Your task to perform on an android device: install app "Google Home" Image 0: 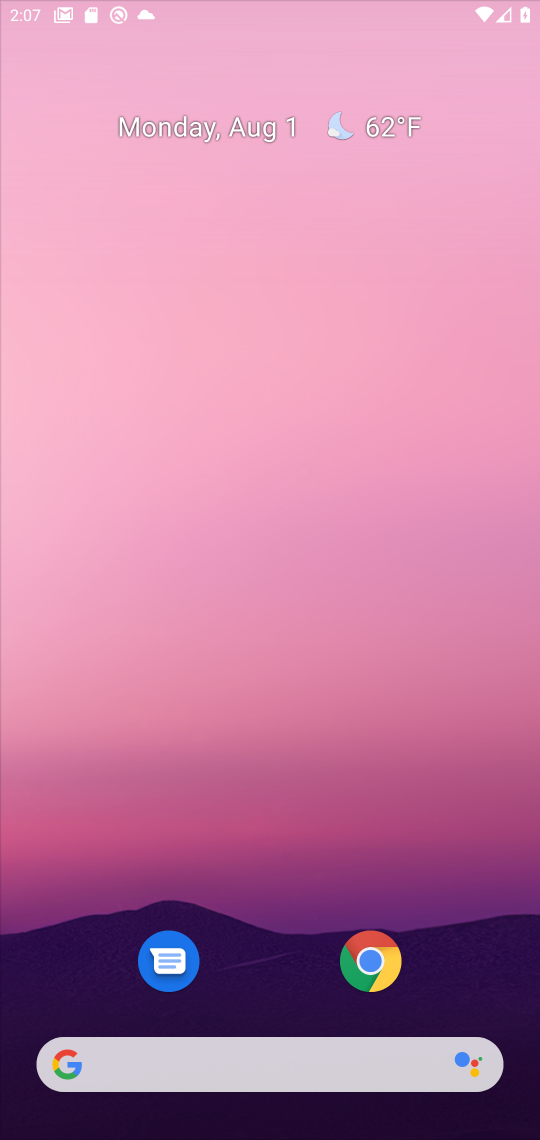
Step 0: press home button
Your task to perform on an android device: install app "Google Home" Image 1: 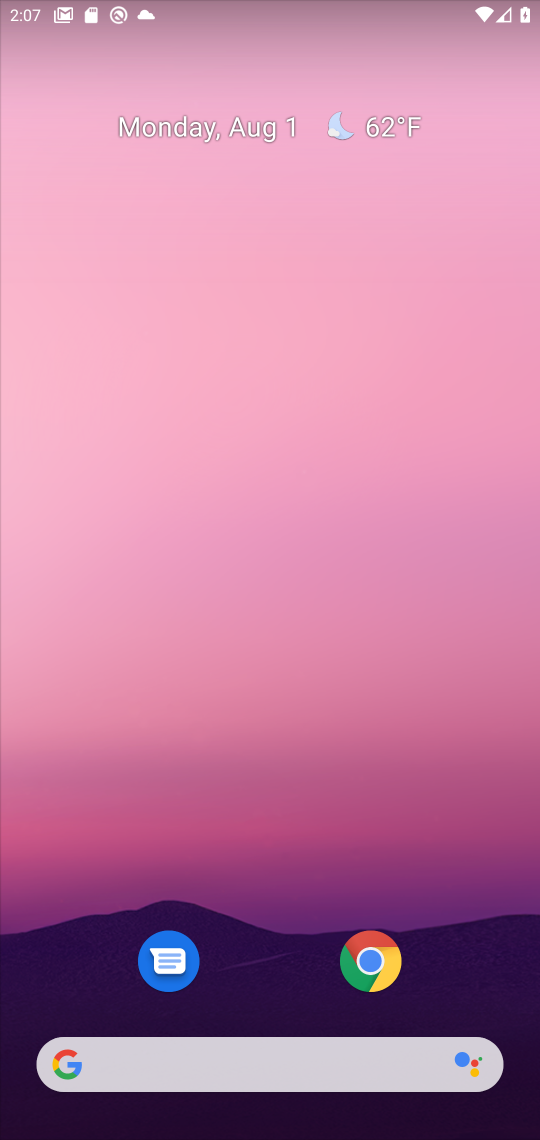
Step 1: press home button
Your task to perform on an android device: install app "Google Home" Image 2: 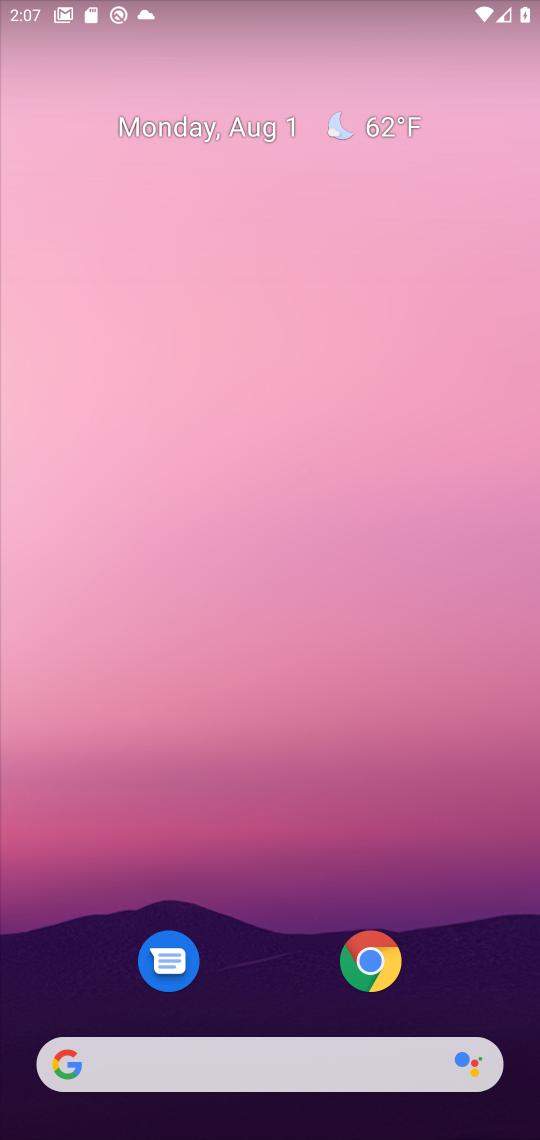
Step 2: drag from (464, 935) to (459, 15)
Your task to perform on an android device: install app "Google Home" Image 3: 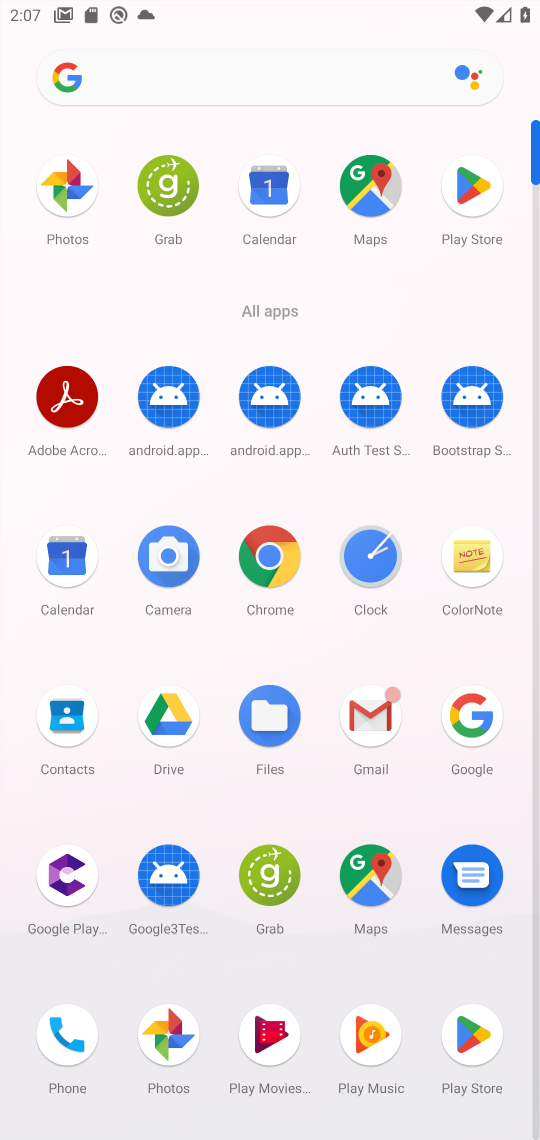
Step 3: click (485, 192)
Your task to perform on an android device: install app "Google Home" Image 4: 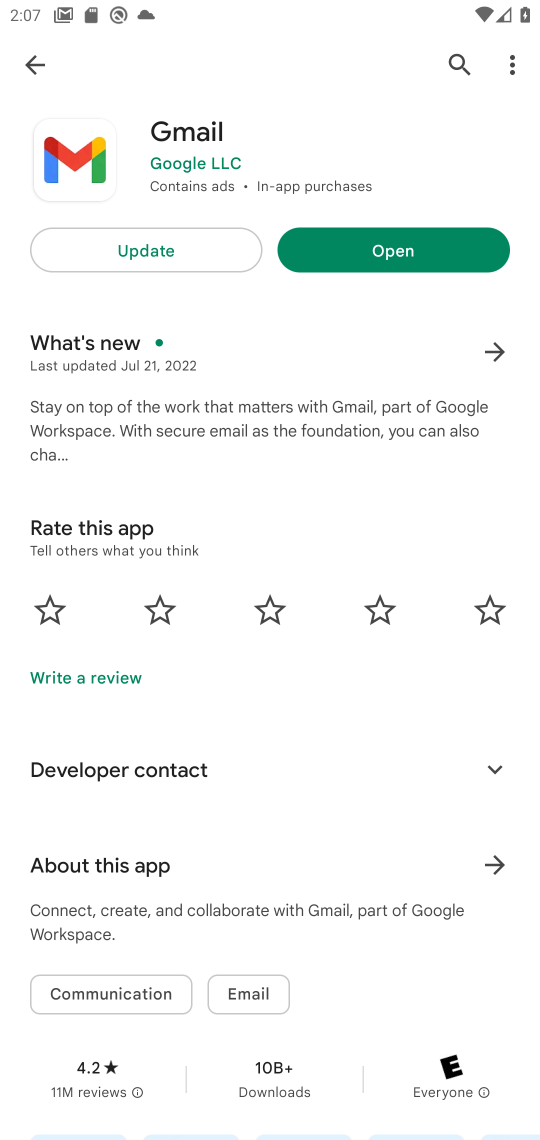
Step 4: click (447, 67)
Your task to perform on an android device: install app "Google Home" Image 5: 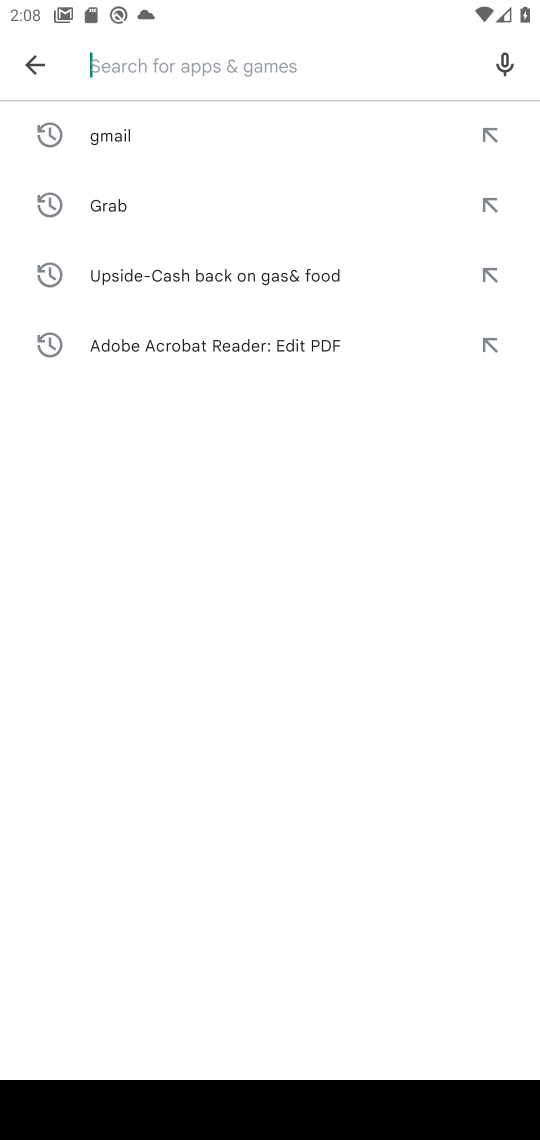
Step 5: type "Google Home"
Your task to perform on an android device: install app "Google Home" Image 6: 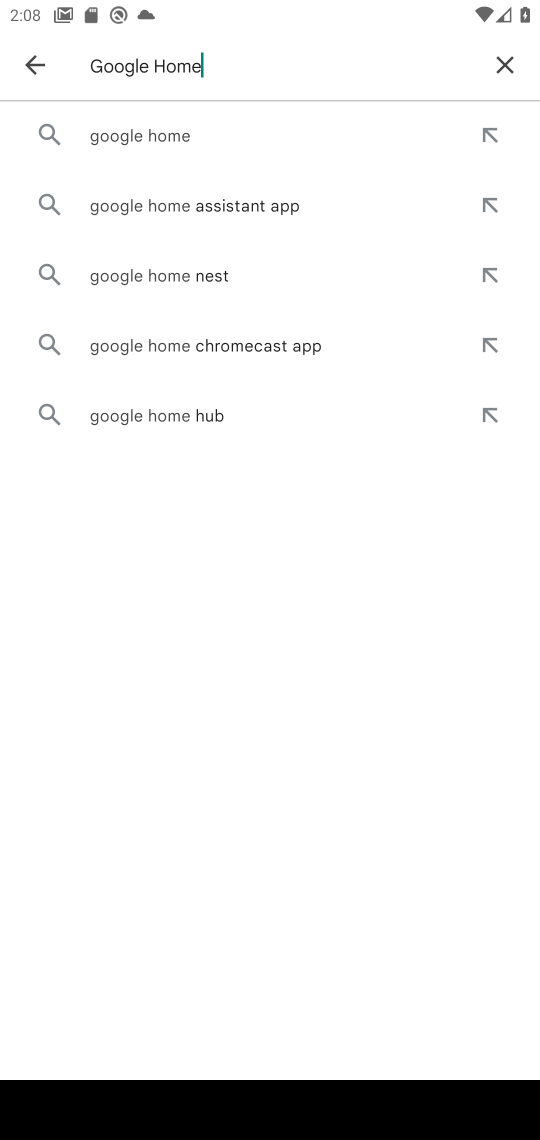
Step 6: press enter
Your task to perform on an android device: install app "Google Home" Image 7: 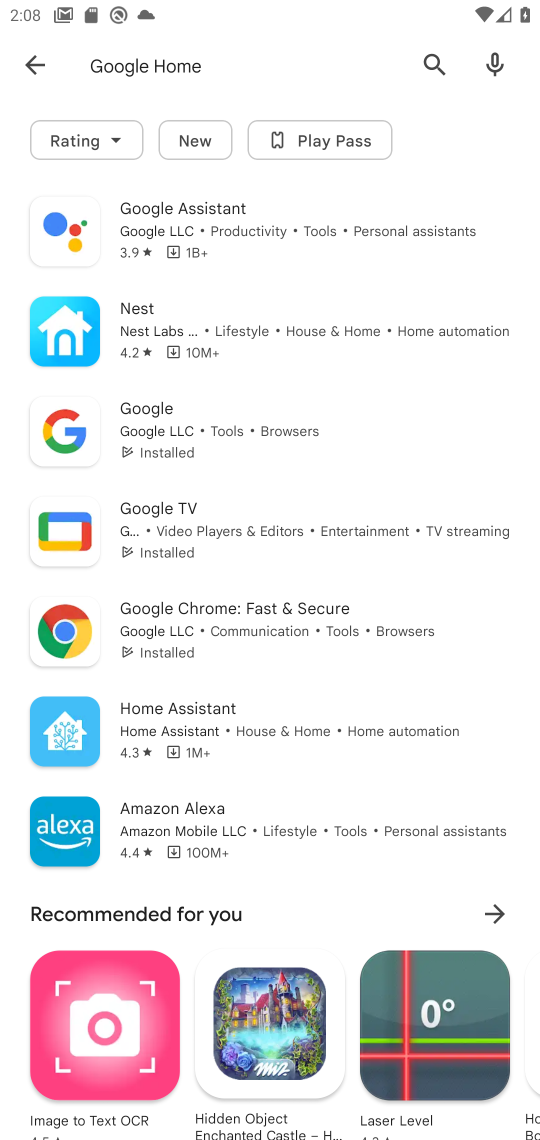
Step 7: task complete